Your task to perform on an android device: Open internet settings Image 0: 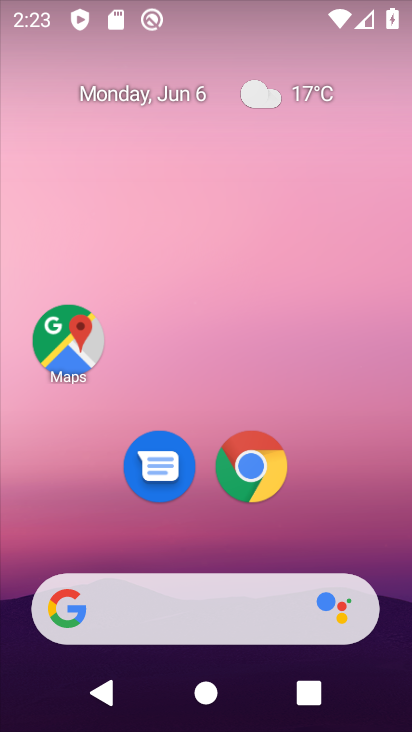
Step 0: press home button
Your task to perform on an android device: Open internet settings Image 1: 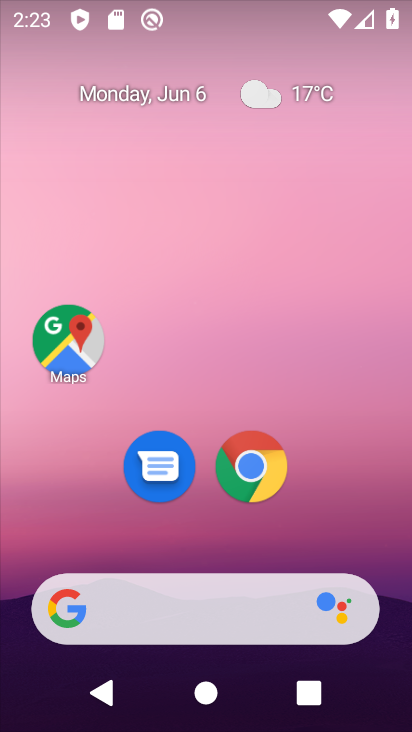
Step 1: drag from (345, 565) to (198, 4)
Your task to perform on an android device: Open internet settings Image 2: 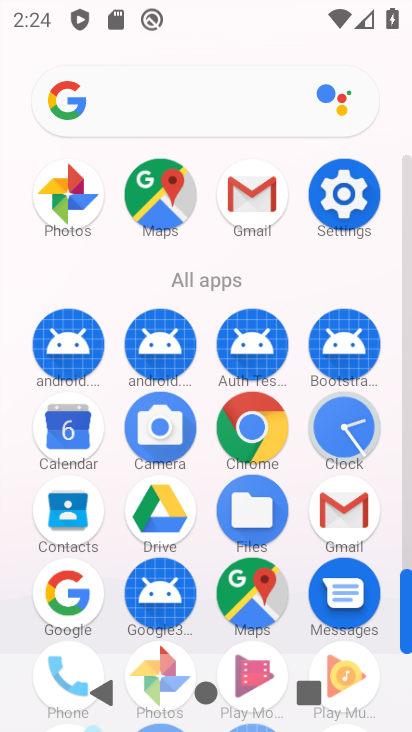
Step 2: click (337, 185)
Your task to perform on an android device: Open internet settings Image 3: 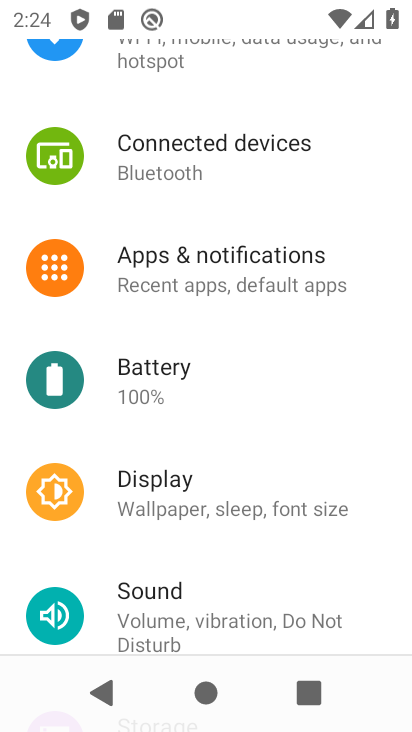
Step 3: click (181, 65)
Your task to perform on an android device: Open internet settings Image 4: 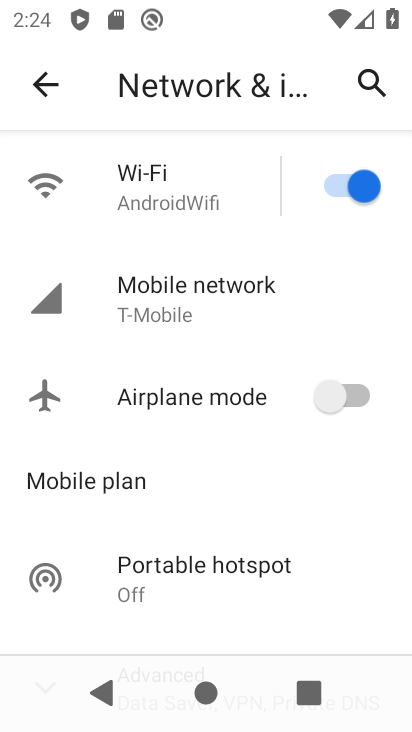
Step 4: task complete